Your task to perform on an android device: Open settings Image 0: 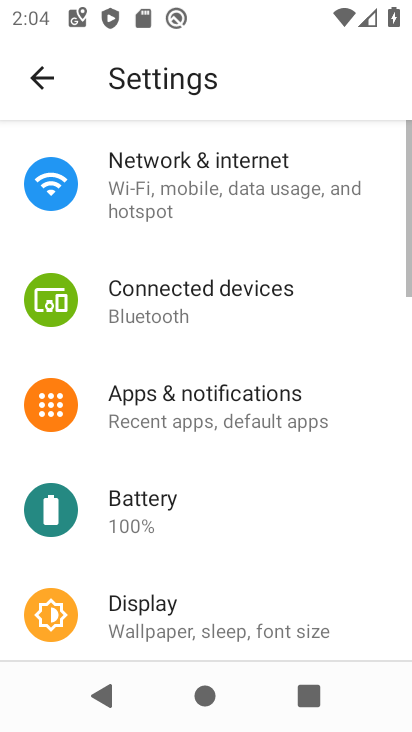
Step 0: drag from (350, 557) to (384, 136)
Your task to perform on an android device: Open settings Image 1: 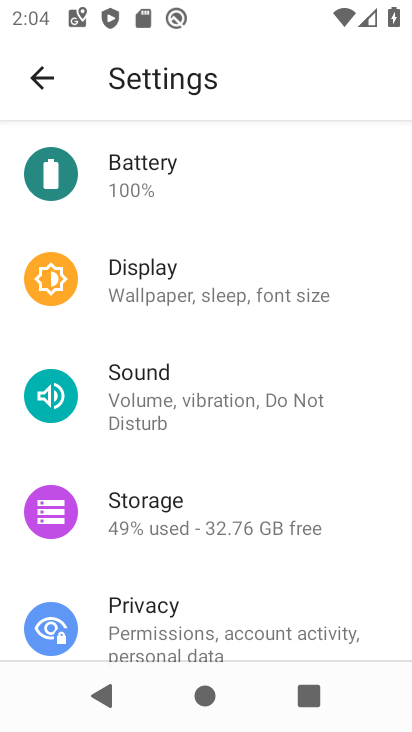
Step 1: task complete